Your task to perform on an android device: Open Android settings Image 0: 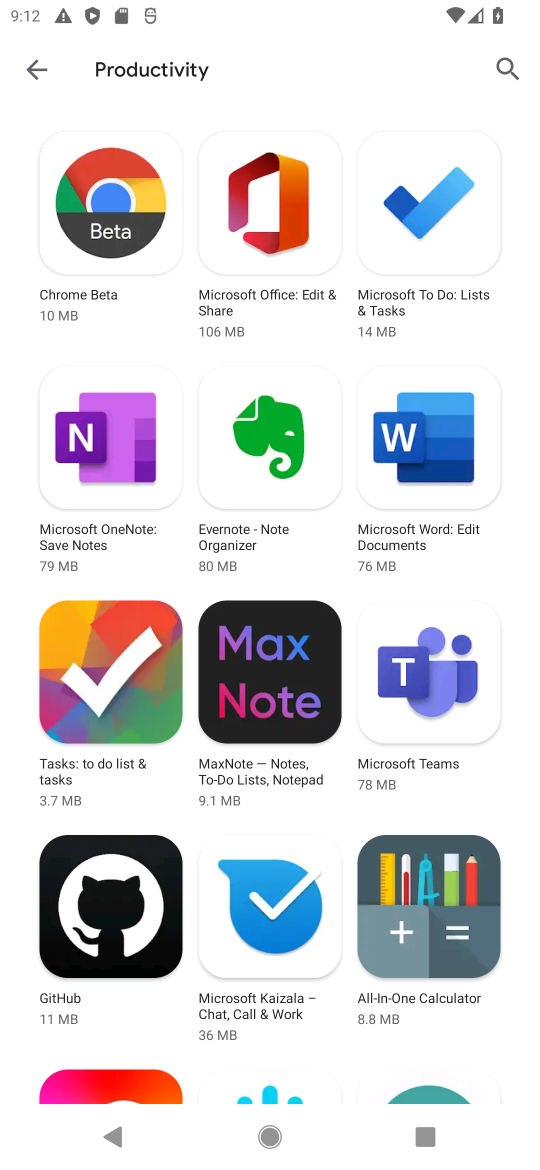
Step 0: press home button
Your task to perform on an android device: Open Android settings Image 1: 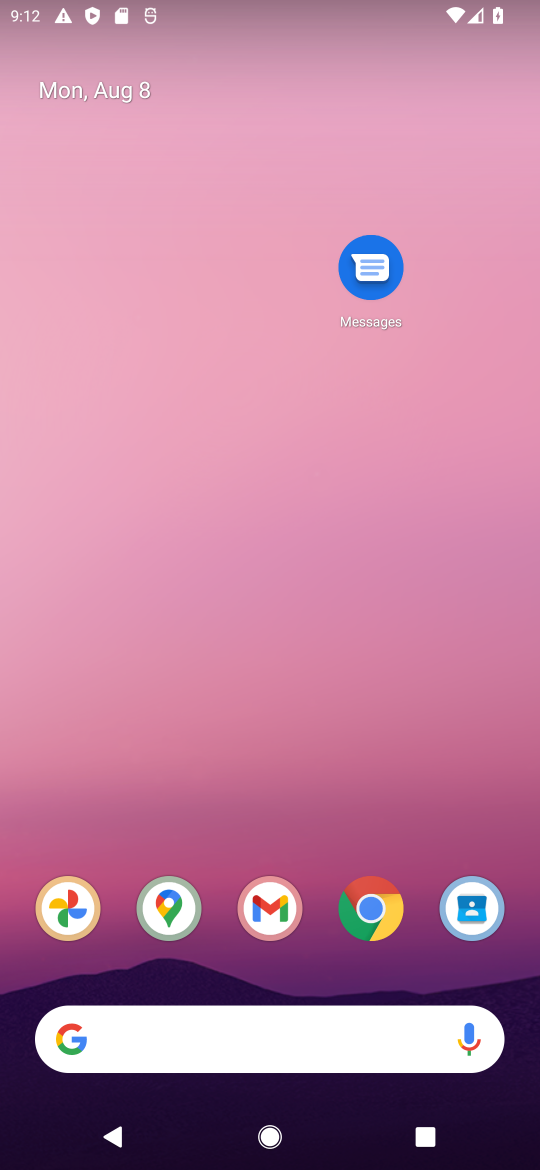
Step 1: drag from (280, 820) to (207, 0)
Your task to perform on an android device: Open Android settings Image 2: 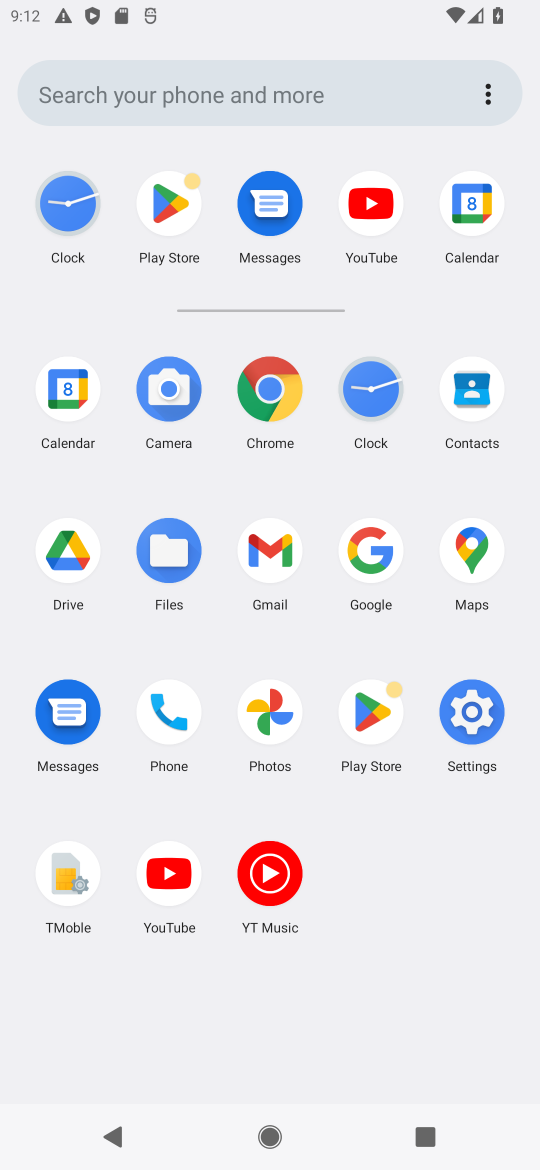
Step 2: click (452, 715)
Your task to perform on an android device: Open Android settings Image 3: 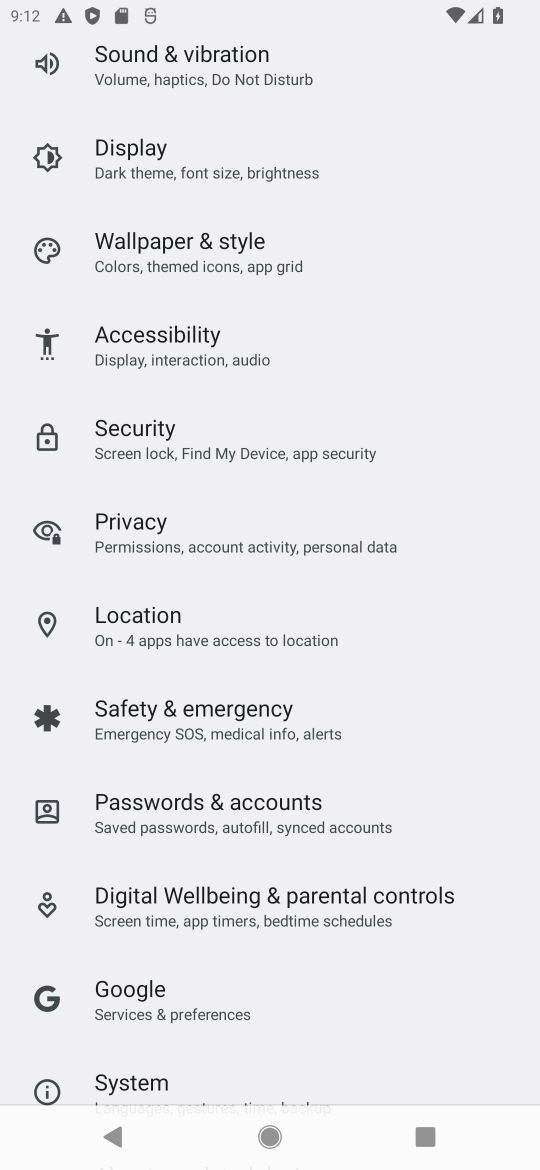
Step 3: task complete